Your task to perform on an android device: change text size in settings app Image 0: 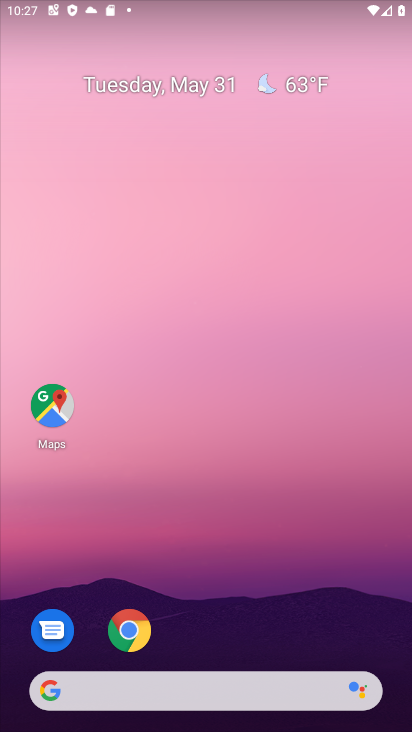
Step 0: drag from (278, 619) to (319, 185)
Your task to perform on an android device: change text size in settings app Image 1: 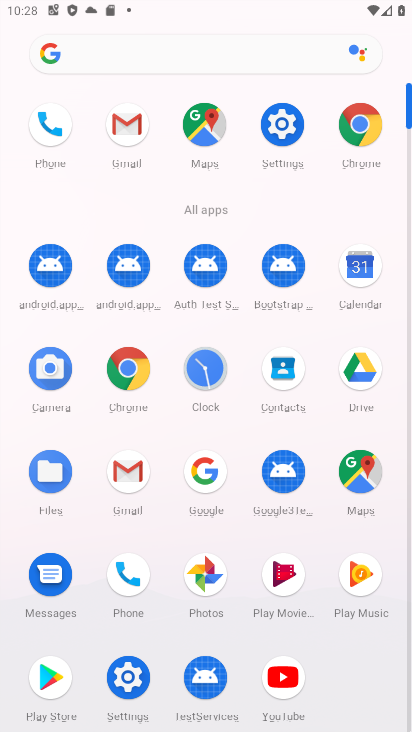
Step 1: click (286, 120)
Your task to perform on an android device: change text size in settings app Image 2: 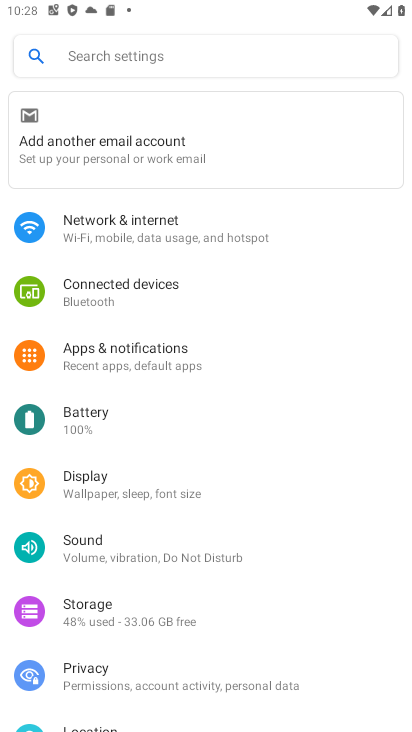
Step 2: click (113, 476)
Your task to perform on an android device: change text size in settings app Image 3: 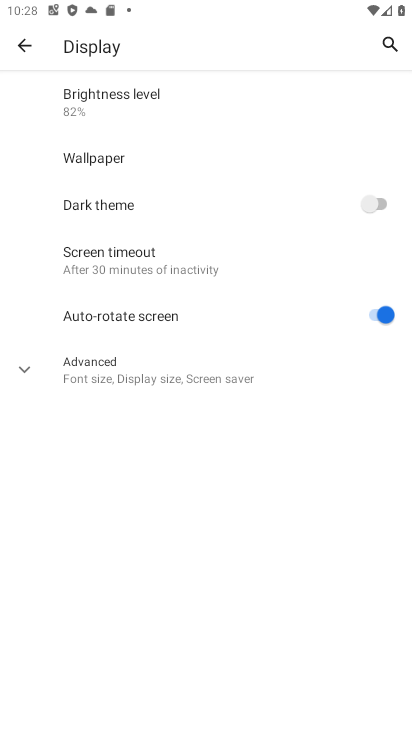
Step 3: click (138, 388)
Your task to perform on an android device: change text size in settings app Image 4: 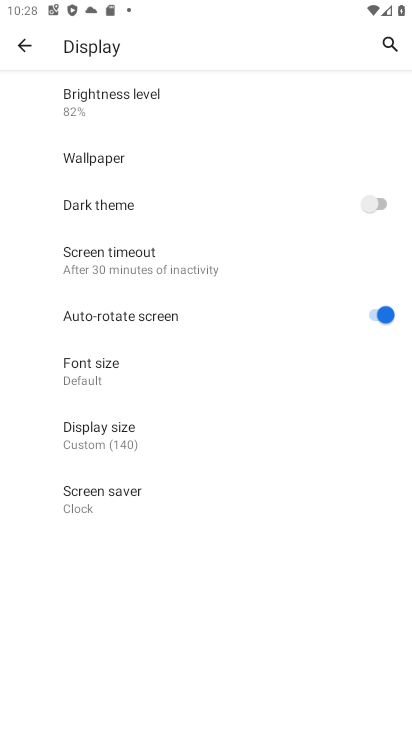
Step 4: click (113, 383)
Your task to perform on an android device: change text size in settings app Image 5: 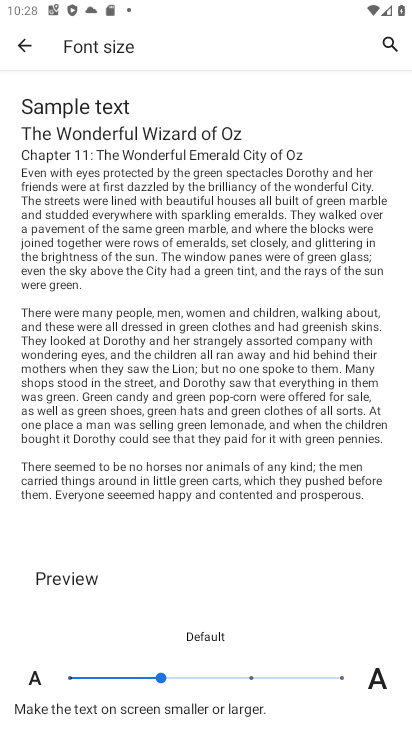
Step 5: click (76, 676)
Your task to perform on an android device: change text size in settings app Image 6: 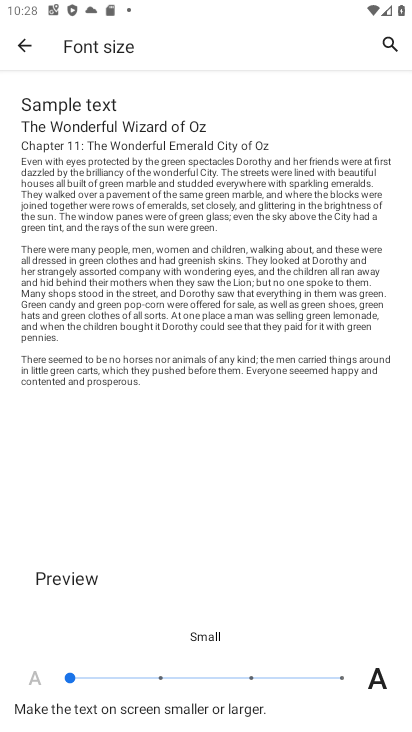
Step 6: click (76, 676)
Your task to perform on an android device: change text size in settings app Image 7: 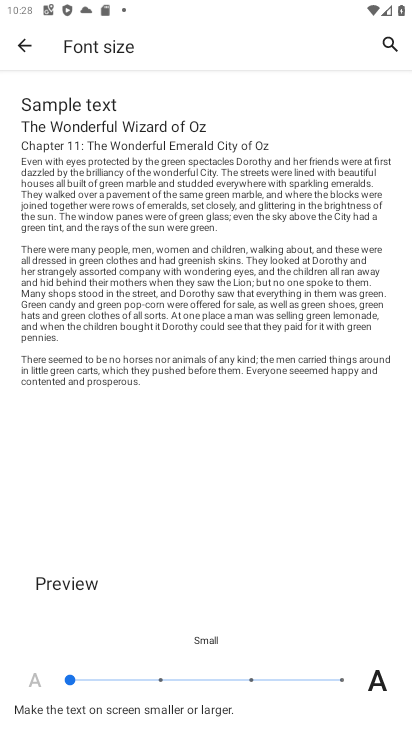
Step 7: task complete